Your task to perform on an android device: Open the calendar app, open the side menu, and click the "Day" option Image 0: 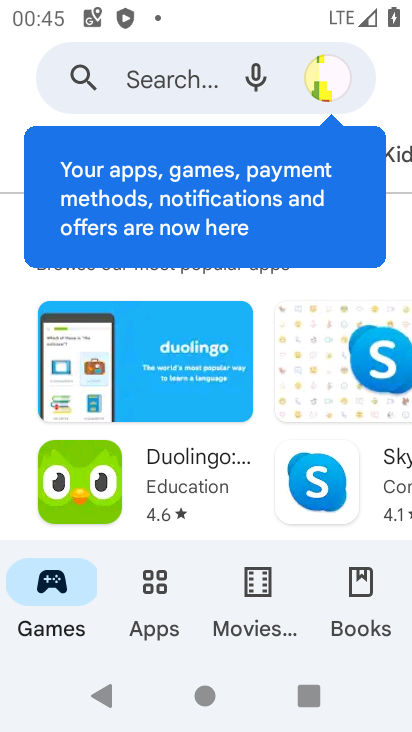
Step 0: press home button
Your task to perform on an android device: Open the calendar app, open the side menu, and click the "Day" option Image 1: 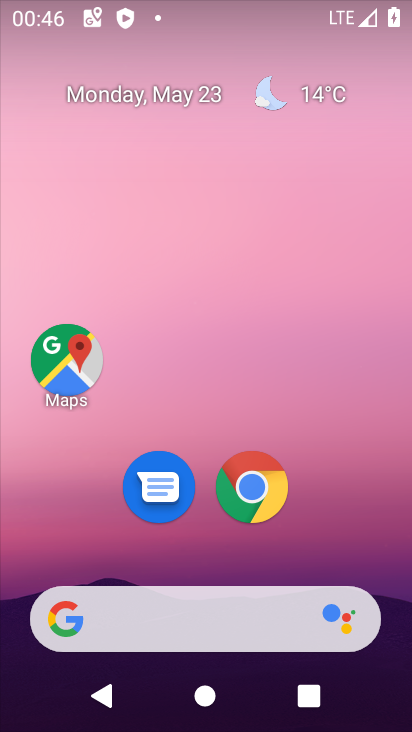
Step 1: drag from (389, 595) to (301, 3)
Your task to perform on an android device: Open the calendar app, open the side menu, and click the "Day" option Image 2: 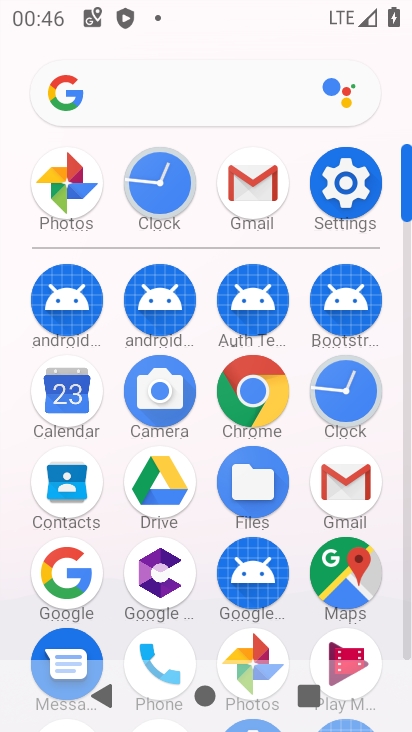
Step 2: click (65, 393)
Your task to perform on an android device: Open the calendar app, open the side menu, and click the "Day" option Image 3: 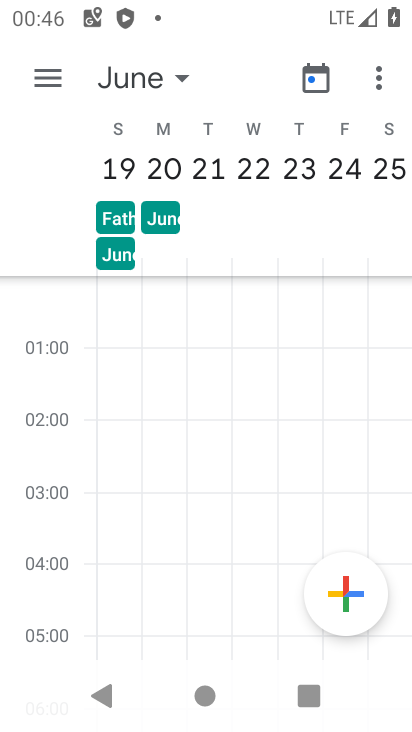
Step 3: click (39, 80)
Your task to perform on an android device: Open the calendar app, open the side menu, and click the "Day" option Image 4: 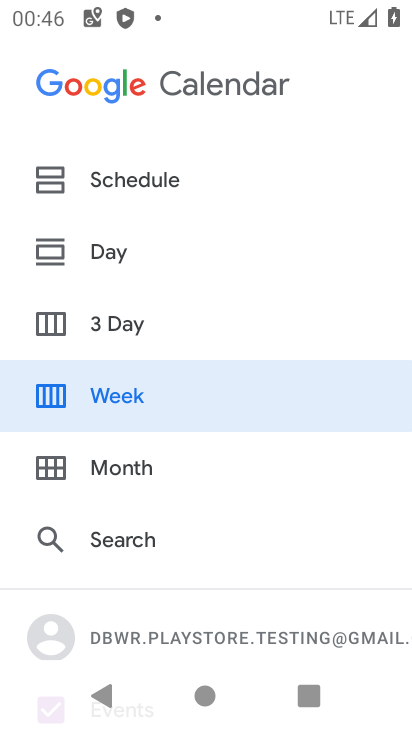
Step 4: click (113, 252)
Your task to perform on an android device: Open the calendar app, open the side menu, and click the "Day" option Image 5: 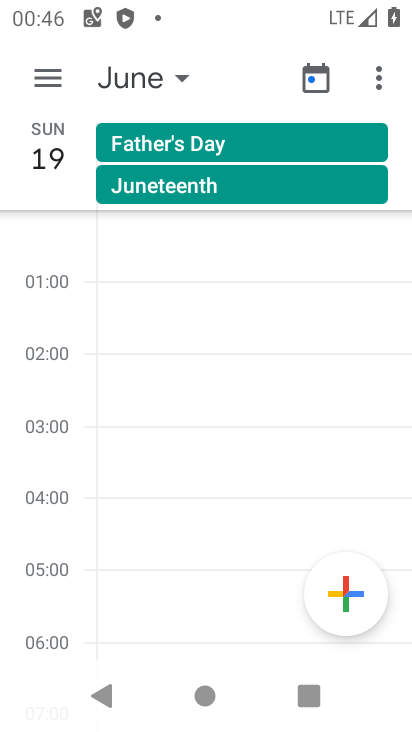
Step 5: task complete